Your task to perform on an android device: Go to Maps Image 0: 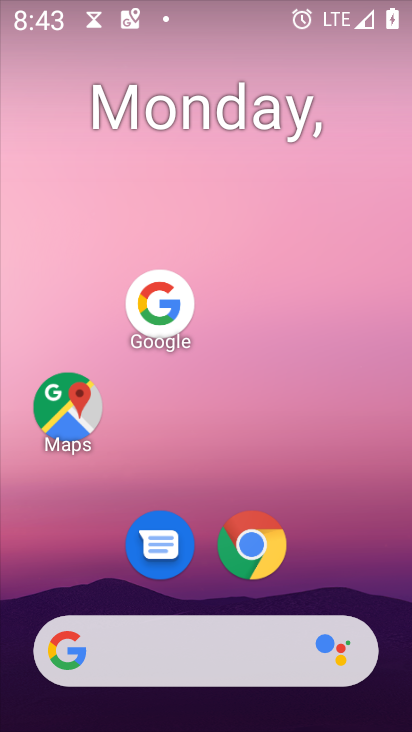
Step 0: press home button
Your task to perform on an android device: Go to Maps Image 1: 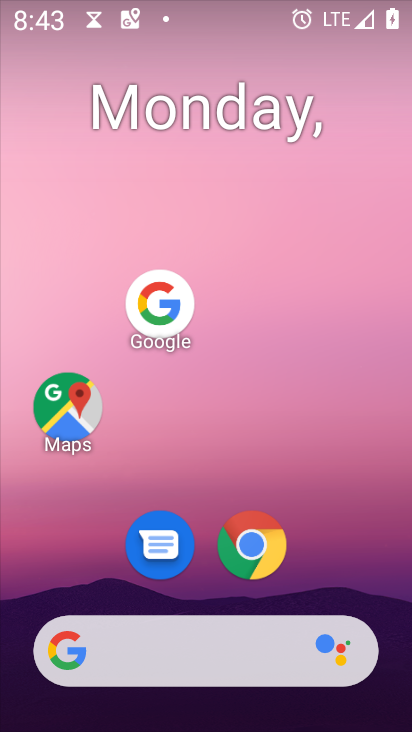
Step 1: click (69, 421)
Your task to perform on an android device: Go to Maps Image 2: 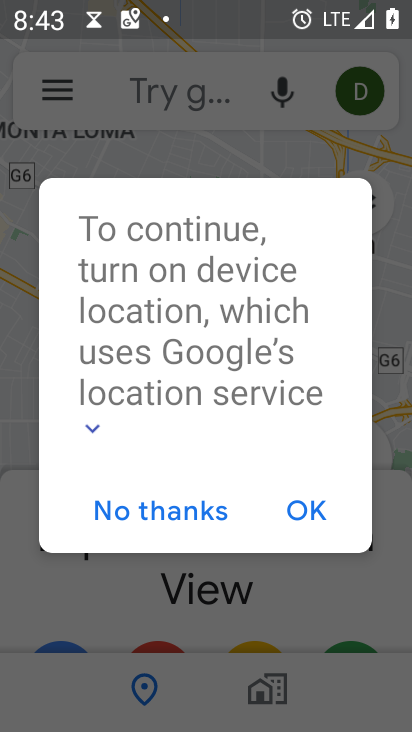
Step 2: click (301, 515)
Your task to perform on an android device: Go to Maps Image 3: 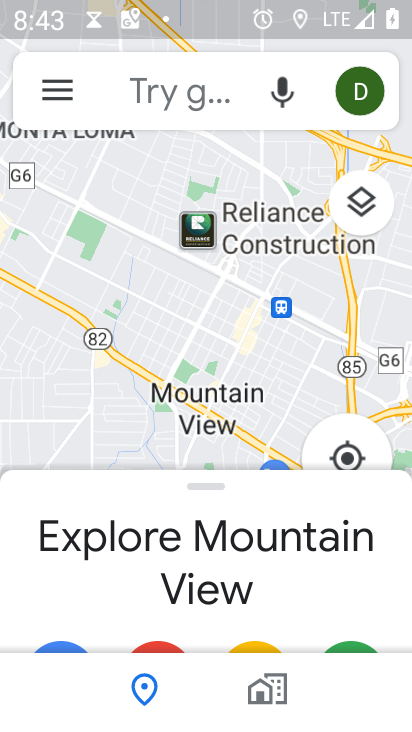
Step 3: task complete